Your task to perform on an android device: Open the web browser Image 0: 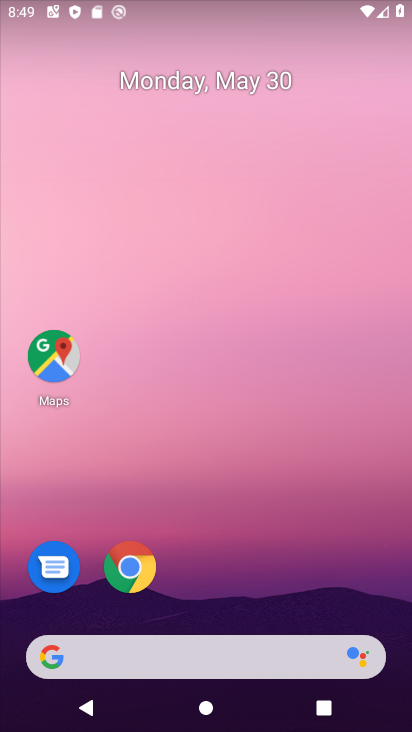
Step 0: click (120, 671)
Your task to perform on an android device: Open the web browser Image 1: 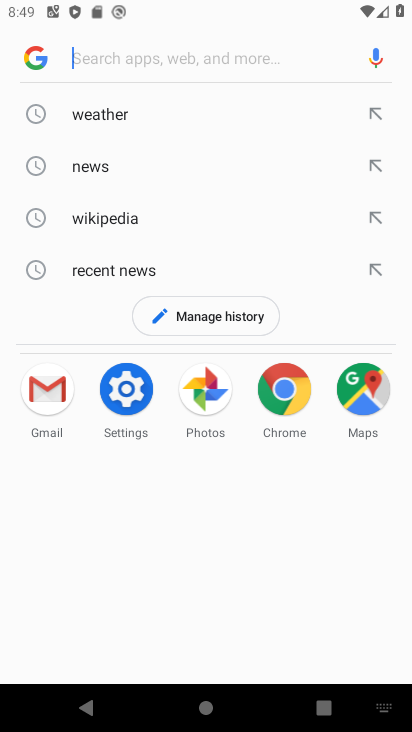
Step 1: task complete